Your task to perform on an android device: change the clock display to analog Image 0: 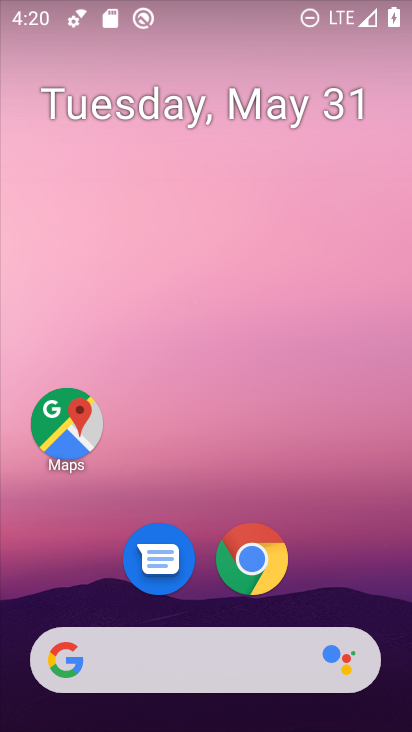
Step 0: drag from (227, 725) to (215, 96)
Your task to perform on an android device: change the clock display to analog Image 1: 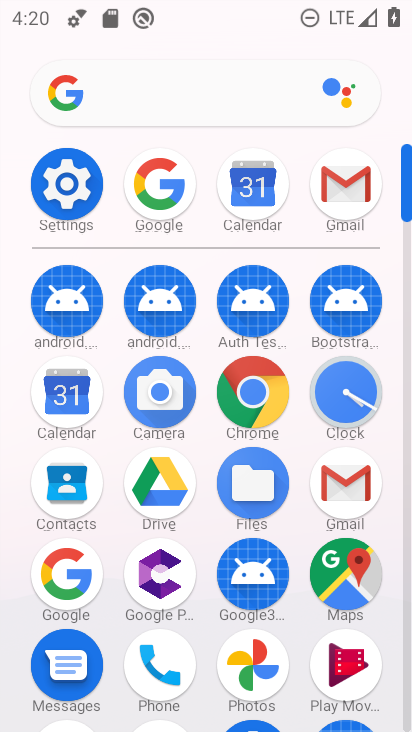
Step 1: click (343, 391)
Your task to perform on an android device: change the clock display to analog Image 2: 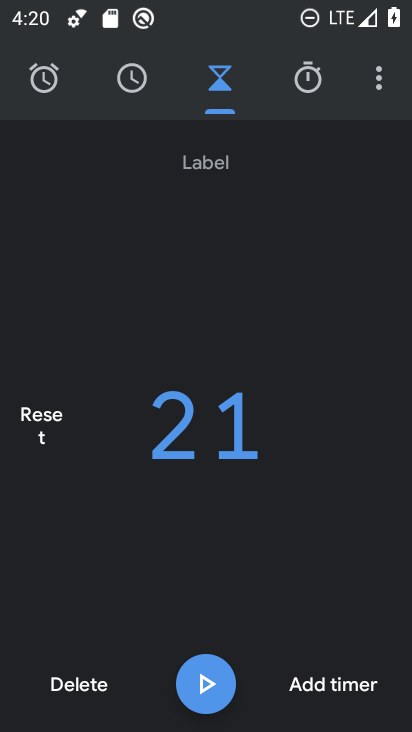
Step 2: click (381, 88)
Your task to perform on an android device: change the clock display to analog Image 3: 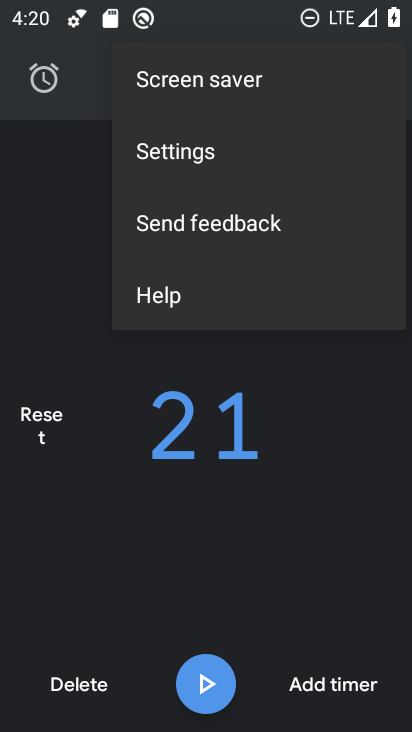
Step 3: click (177, 151)
Your task to perform on an android device: change the clock display to analog Image 4: 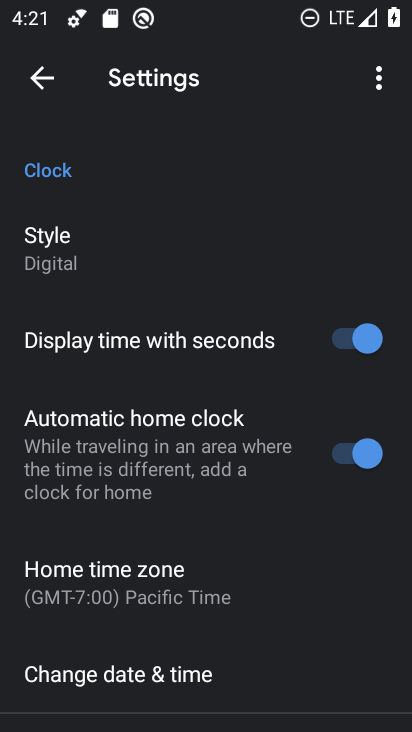
Step 4: click (58, 253)
Your task to perform on an android device: change the clock display to analog Image 5: 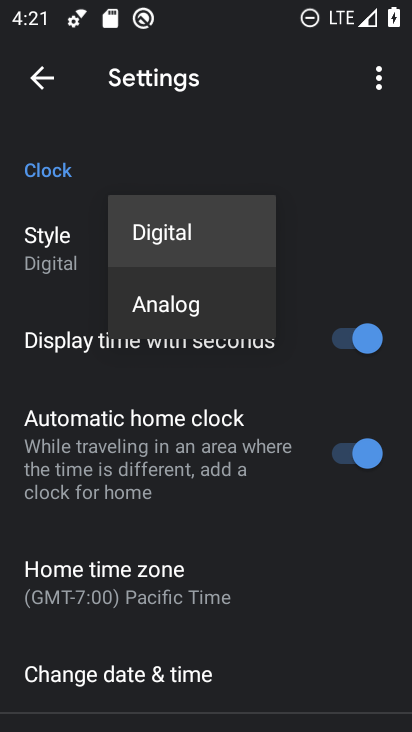
Step 5: click (166, 298)
Your task to perform on an android device: change the clock display to analog Image 6: 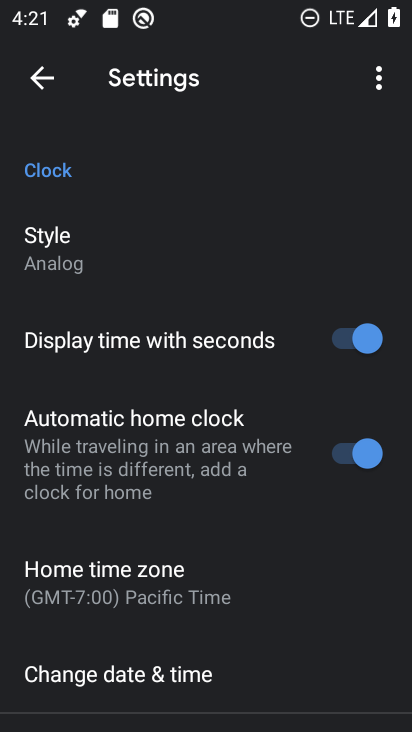
Step 6: task complete